Your task to perform on an android device: find which apps use the phone's location Image 0: 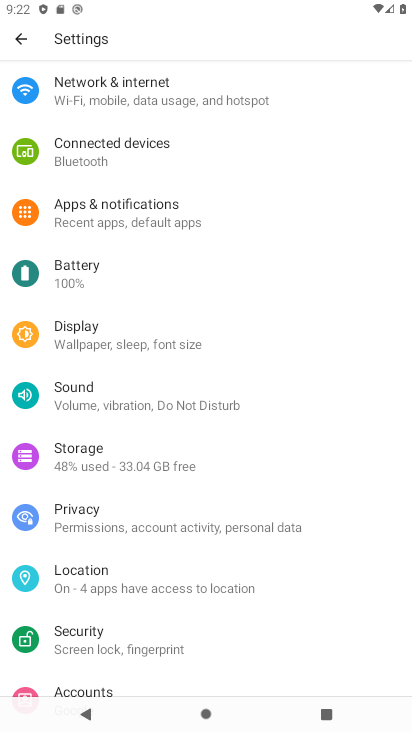
Step 0: click (101, 592)
Your task to perform on an android device: find which apps use the phone's location Image 1: 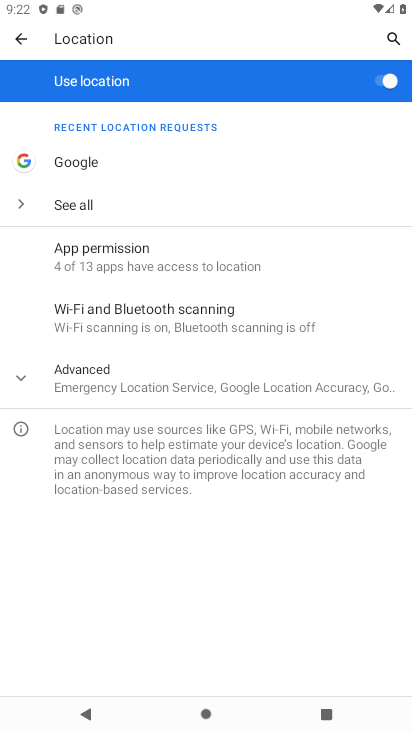
Step 1: click (90, 259)
Your task to perform on an android device: find which apps use the phone's location Image 2: 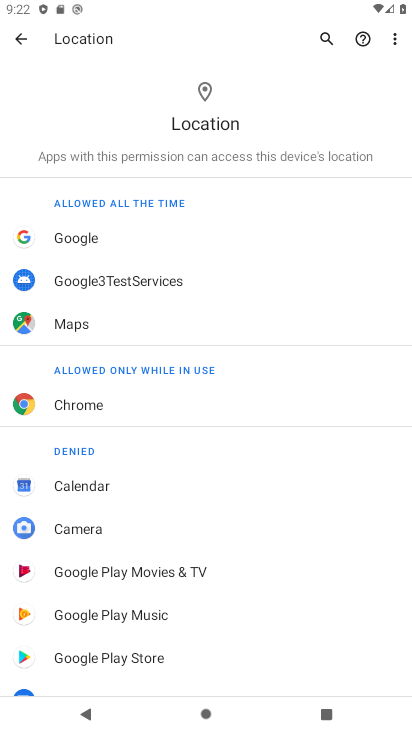
Step 2: task complete